Your task to perform on an android device: add a contact in the contacts app Image 0: 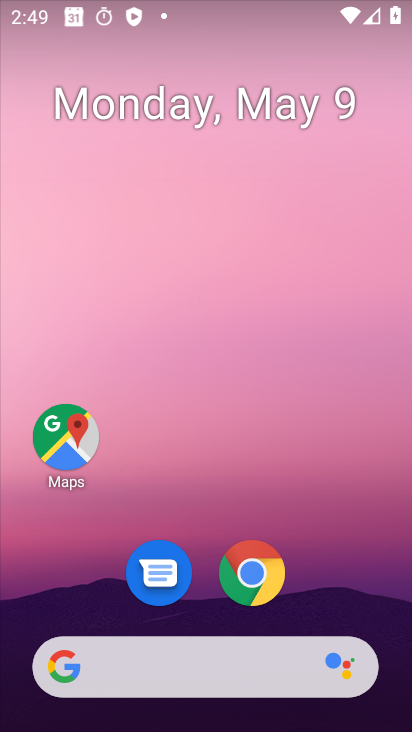
Step 0: drag from (367, 655) to (270, 138)
Your task to perform on an android device: add a contact in the contacts app Image 1: 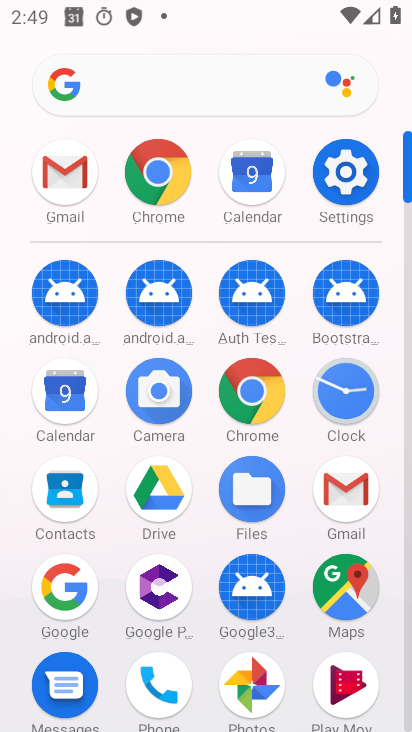
Step 1: click (72, 411)
Your task to perform on an android device: add a contact in the contacts app Image 2: 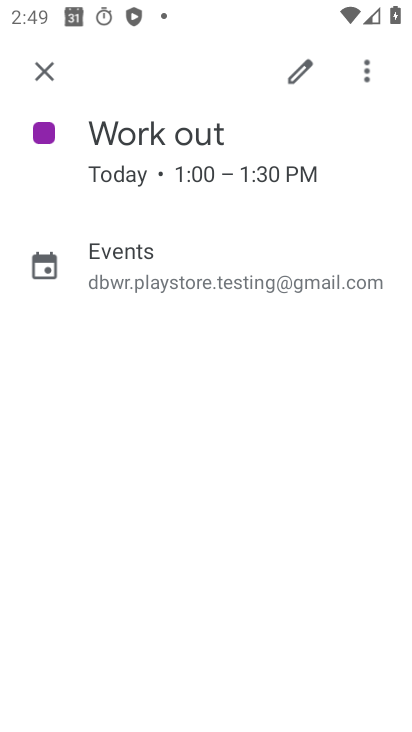
Step 2: click (36, 72)
Your task to perform on an android device: add a contact in the contacts app Image 3: 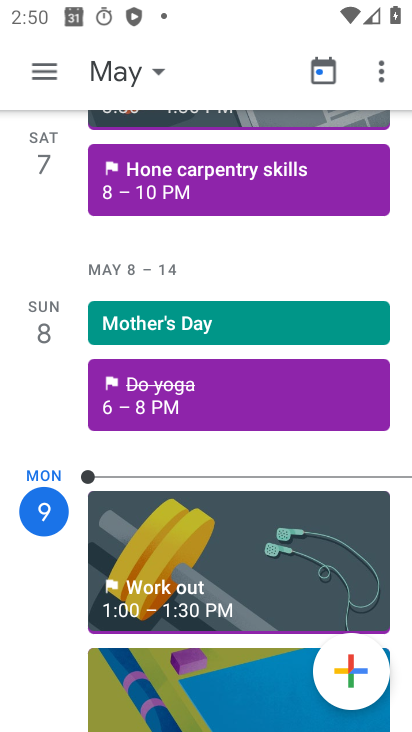
Step 3: press home button
Your task to perform on an android device: add a contact in the contacts app Image 4: 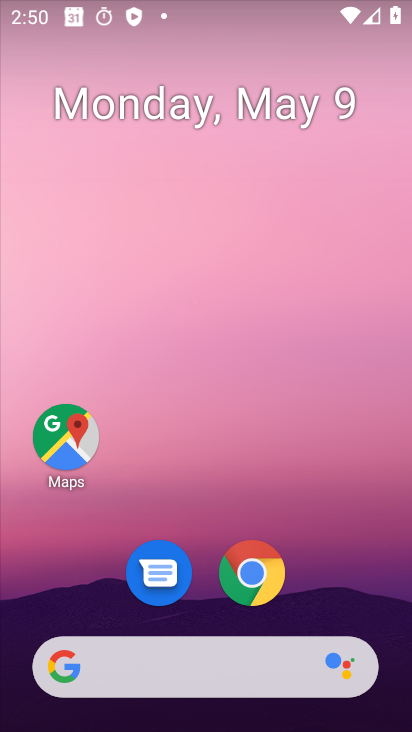
Step 4: drag from (356, 617) to (222, 164)
Your task to perform on an android device: add a contact in the contacts app Image 5: 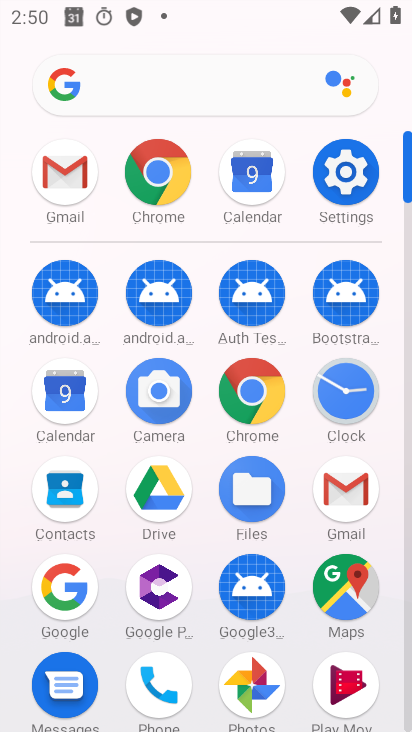
Step 5: click (60, 489)
Your task to perform on an android device: add a contact in the contacts app Image 6: 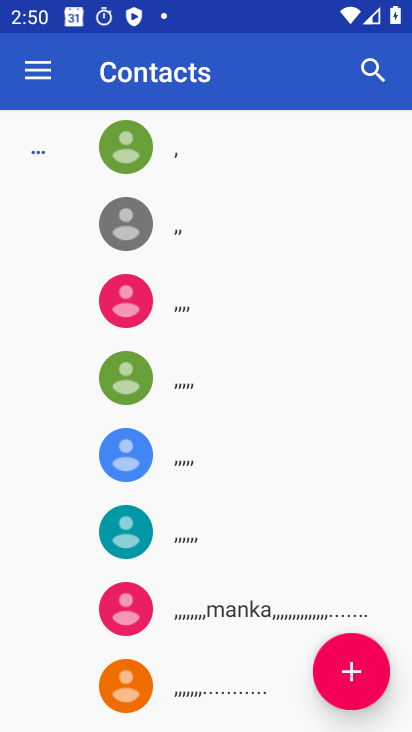
Step 6: click (341, 675)
Your task to perform on an android device: add a contact in the contacts app Image 7: 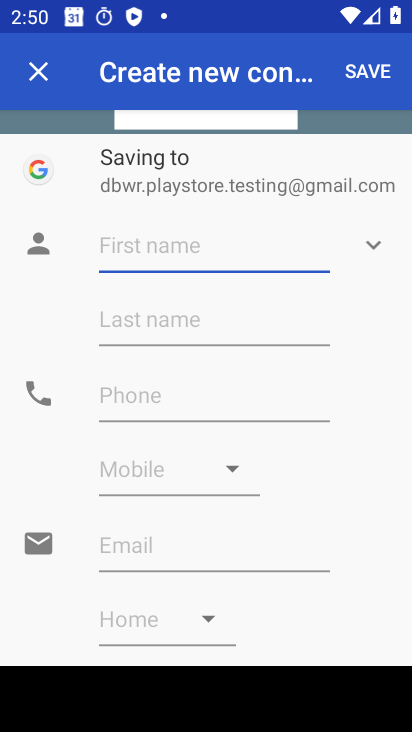
Step 7: type "rupika"
Your task to perform on an android device: add a contact in the contacts app Image 8: 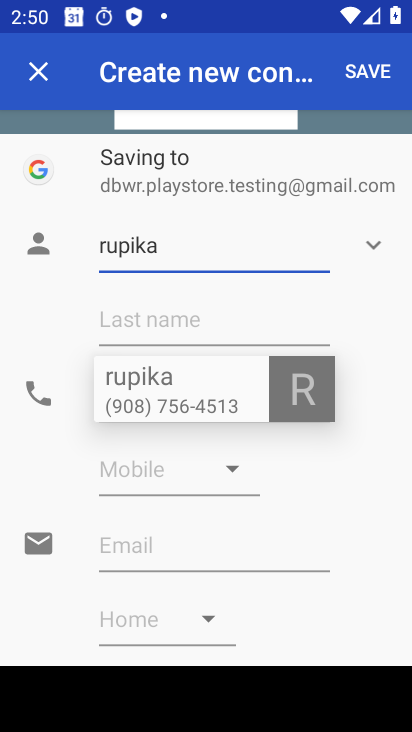
Step 8: click (154, 321)
Your task to perform on an android device: add a contact in the contacts app Image 9: 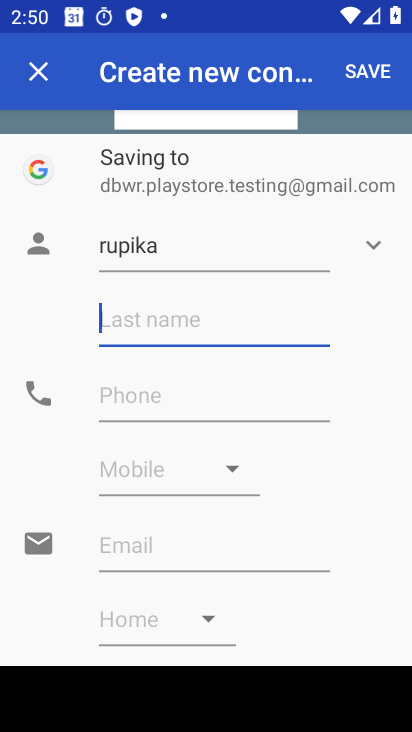
Step 9: click (144, 394)
Your task to perform on an android device: add a contact in the contacts app Image 10: 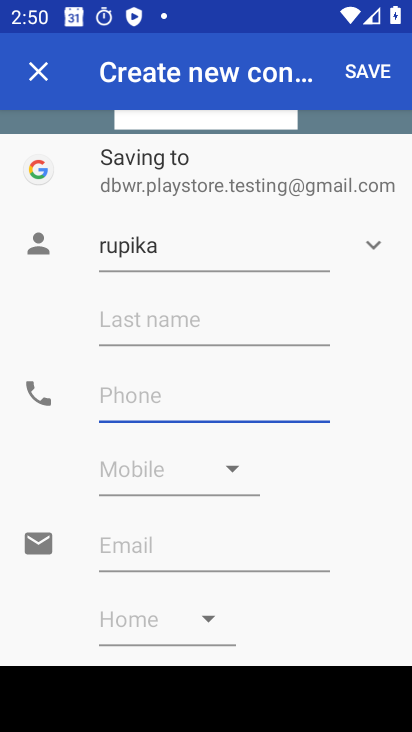
Step 10: type "9789765645"
Your task to perform on an android device: add a contact in the contacts app Image 11: 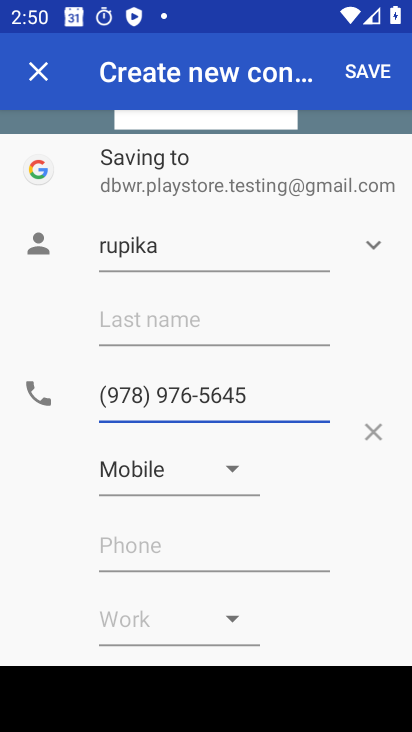
Step 11: click (358, 85)
Your task to perform on an android device: add a contact in the contacts app Image 12: 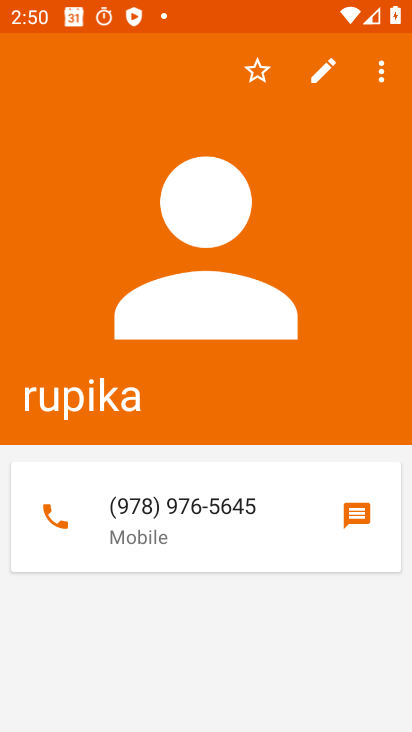
Step 12: task complete